Your task to perform on an android device: Do I have any events tomorrow? Image 0: 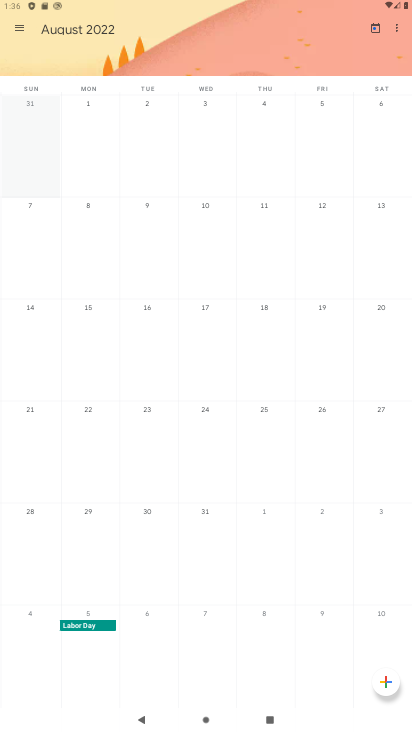
Step 0: press home button
Your task to perform on an android device: Do I have any events tomorrow? Image 1: 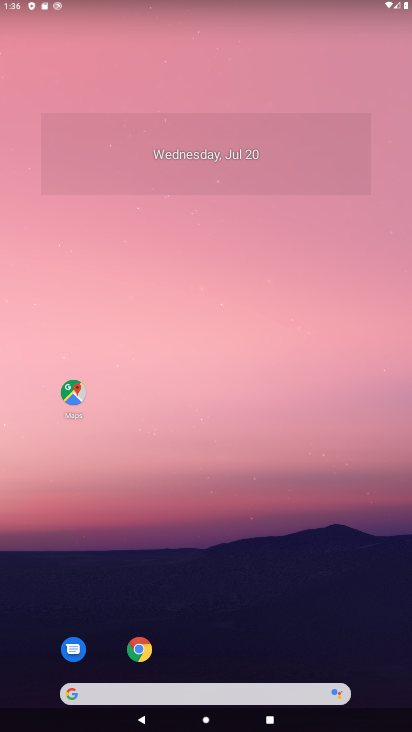
Step 1: drag from (292, 504) to (291, 296)
Your task to perform on an android device: Do I have any events tomorrow? Image 2: 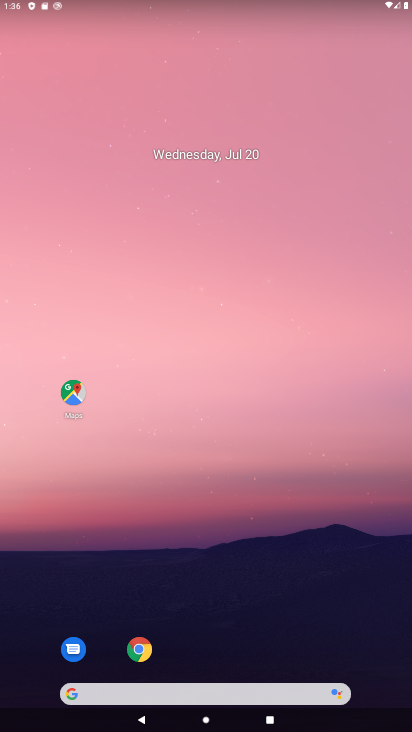
Step 2: drag from (278, 558) to (303, 279)
Your task to perform on an android device: Do I have any events tomorrow? Image 3: 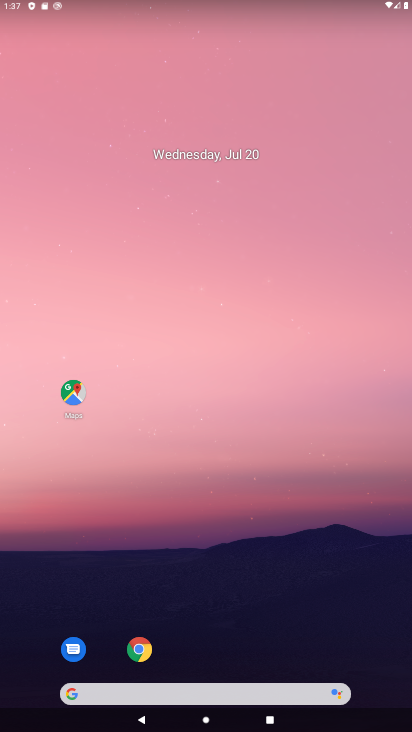
Step 3: drag from (264, 584) to (275, 167)
Your task to perform on an android device: Do I have any events tomorrow? Image 4: 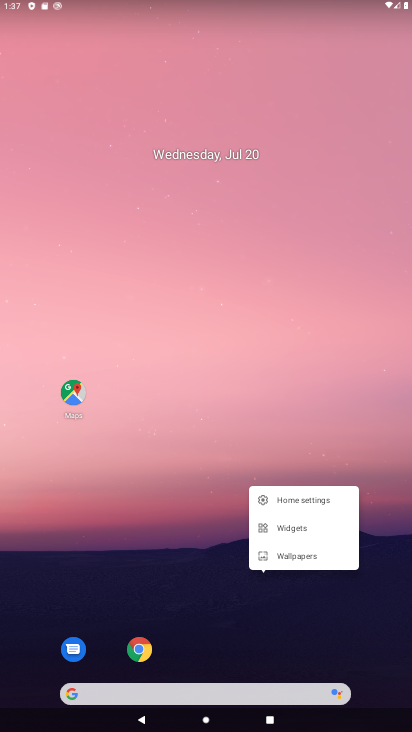
Step 4: click (184, 453)
Your task to perform on an android device: Do I have any events tomorrow? Image 5: 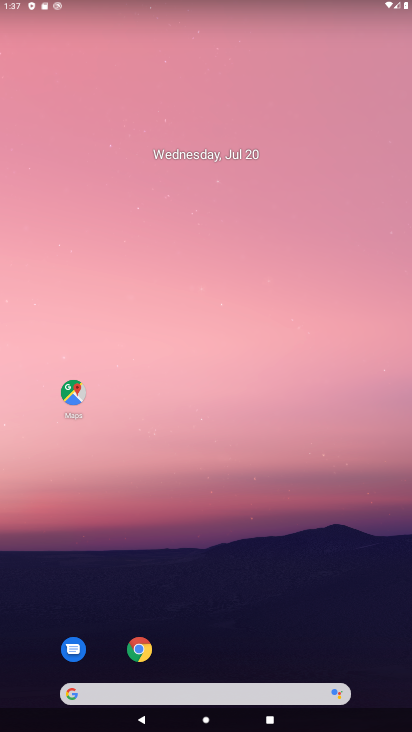
Step 5: drag from (289, 538) to (280, 170)
Your task to perform on an android device: Do I have any events tomorrow? Image 6: 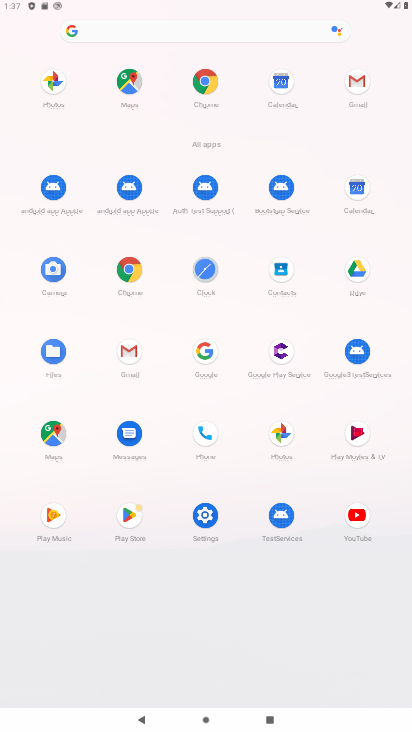
Step 6: click (357, 195)
Your task to perform on an android device: Do I have any events tomorrow? Image 7: 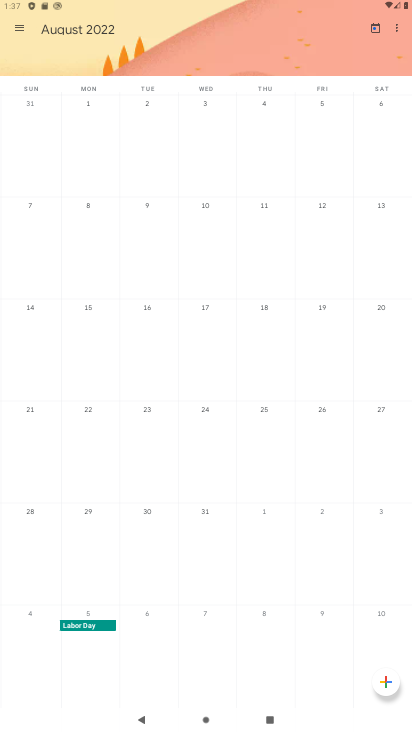
Step 7: task complete